Your task to perform on an android device: Go to eBay Image 0: 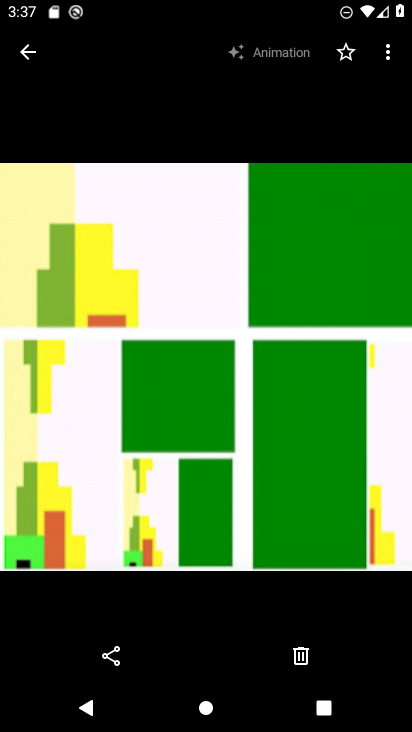
Step 0: press home button
Your task to perform on an android device: Go to eBay Image 1: 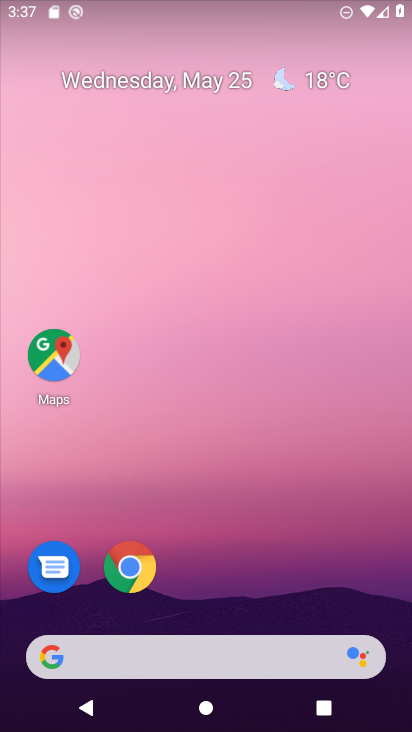
Step 1: drag from (386, 578) to (383, 128)
Your task to perform on an android device: Go to eBay Image 2: 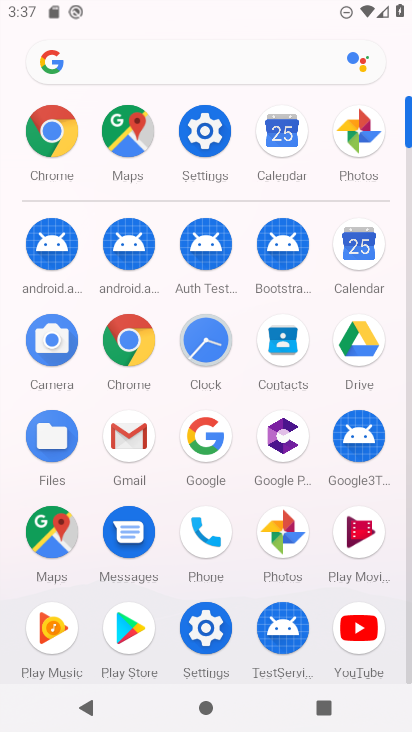
Step 2: click (140, 361)
Your task to perform on an android device: Go to eBay Image 3: 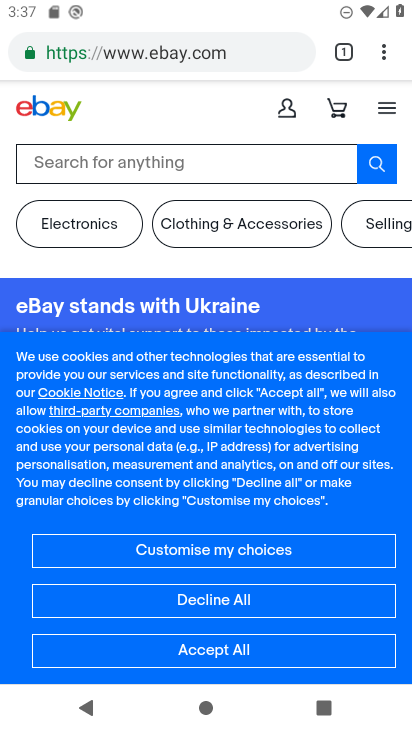
Step 3: task complete